Your task to perform on an android device: Open CNN.com Image 0: 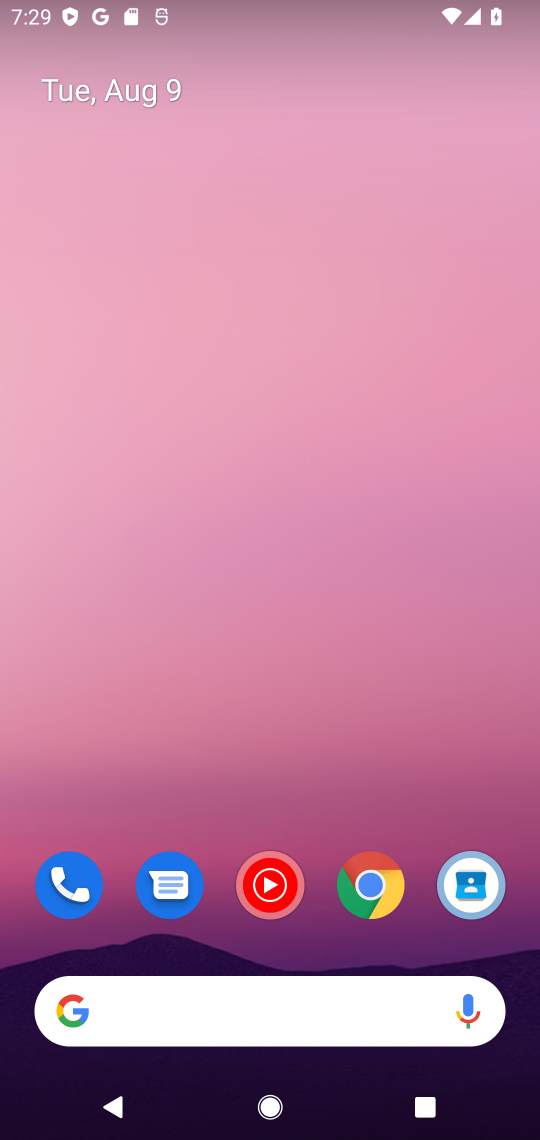
Step 0: drag from (328, 761) to (292, 222)
Your task to perform on an android device: Open CNN.com Image 1: 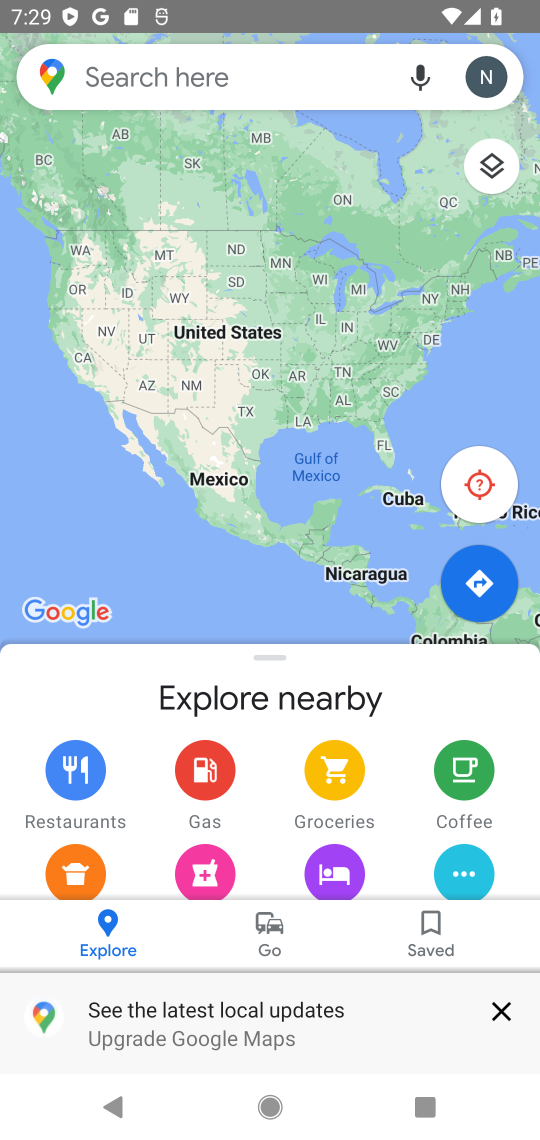
Step 1: press home button
Your task to perform on an android device: Open CNN.com Image 2: 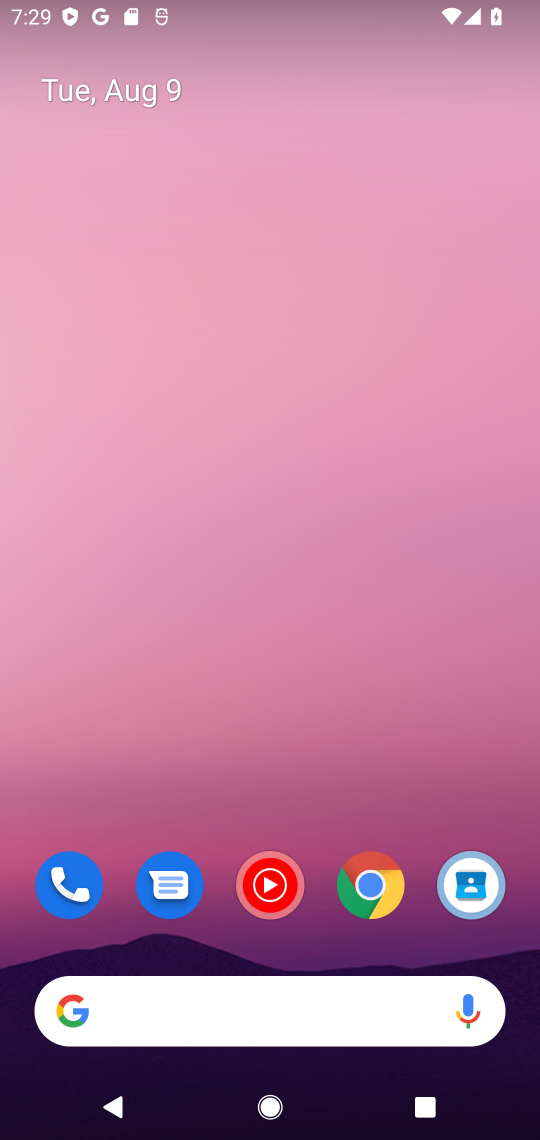
Step 2: drag from (293, 702) to (192, 166)
Your task to perform on an android device: Open CNN.com Image 3: 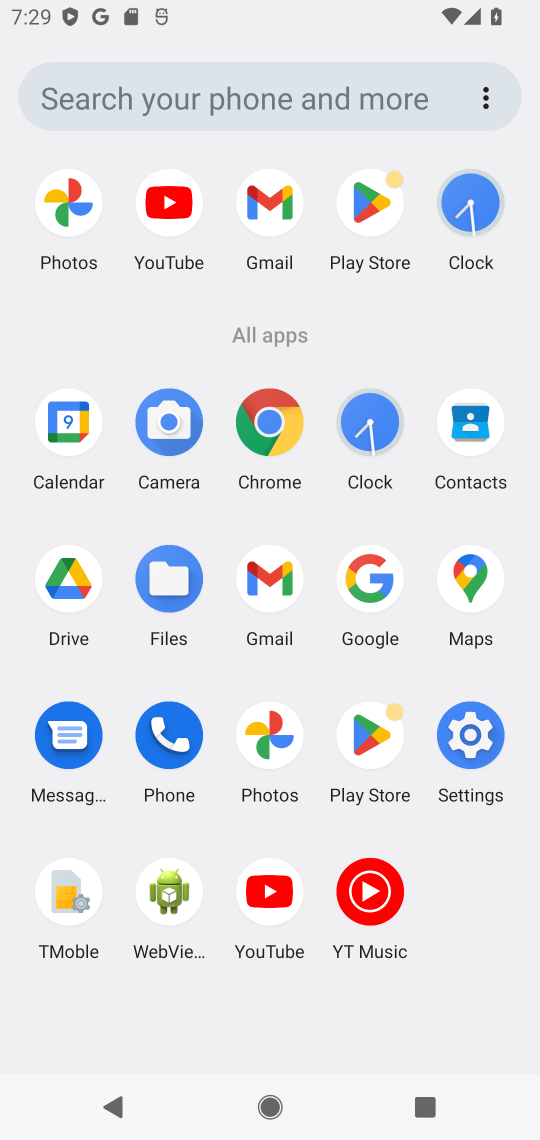
Step 3: click (272, 422)
Your task to perform on an android device: Open CNN.com Image 4: 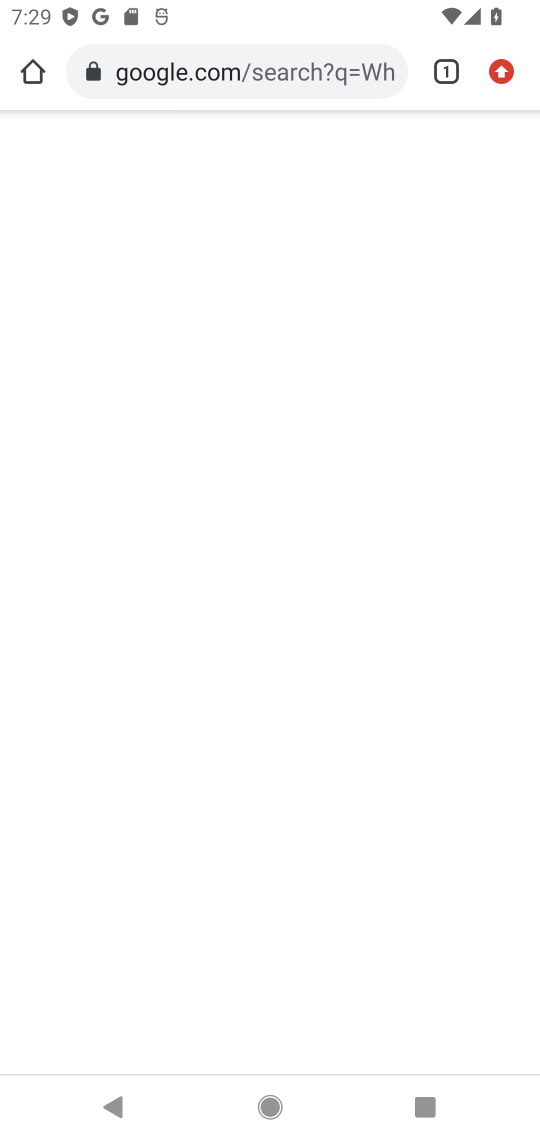
Step 4: click (263, 68)
Your task to perform on an android device: Open CNN.com Image 5: 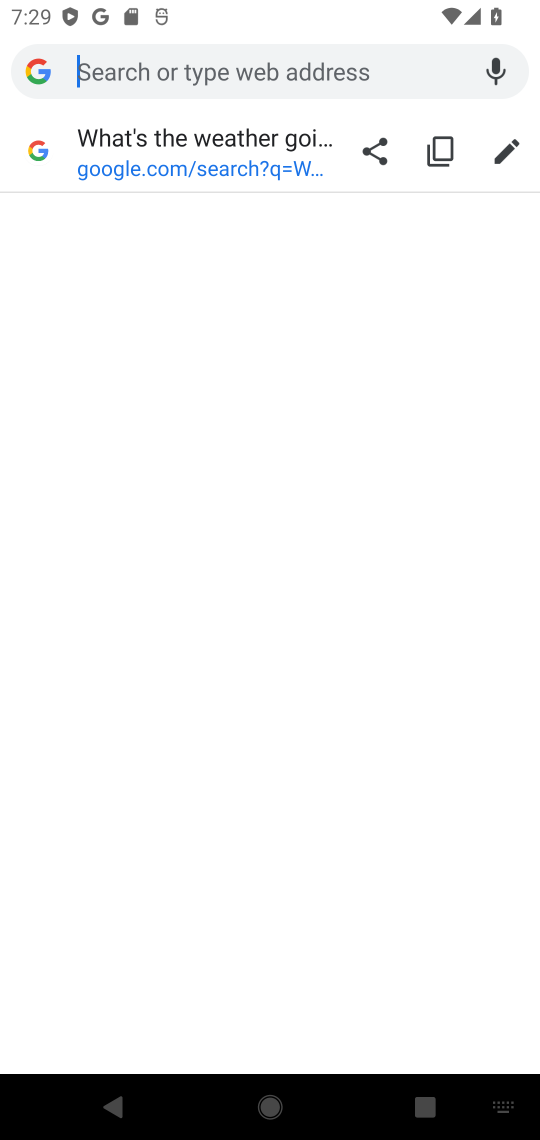
Step 5: type "CNN.com"
Your task to perform on an android device: Open CNN.com Image 6: 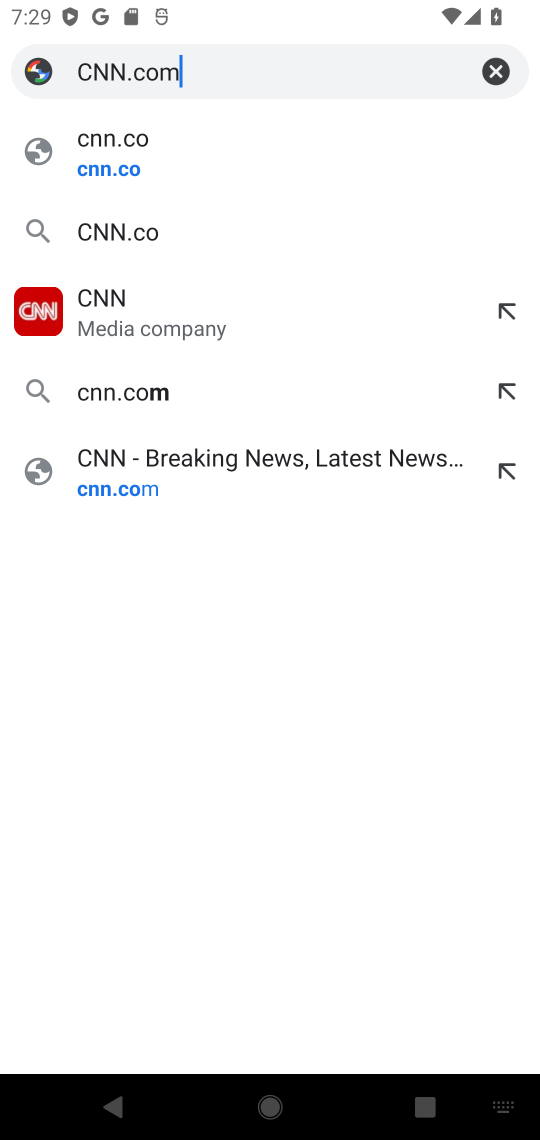
Step 6: type ""
Your task to perform on an android device: Open CNN.com Image 7: 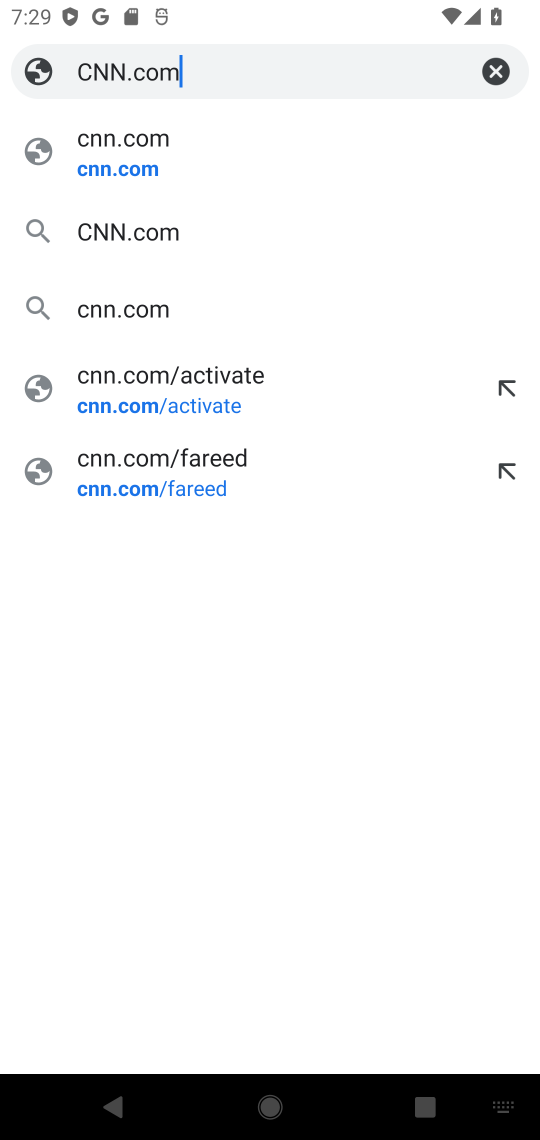
Step 7: press enter
Your task to perform on an android device: Open CNN.com Image 8: 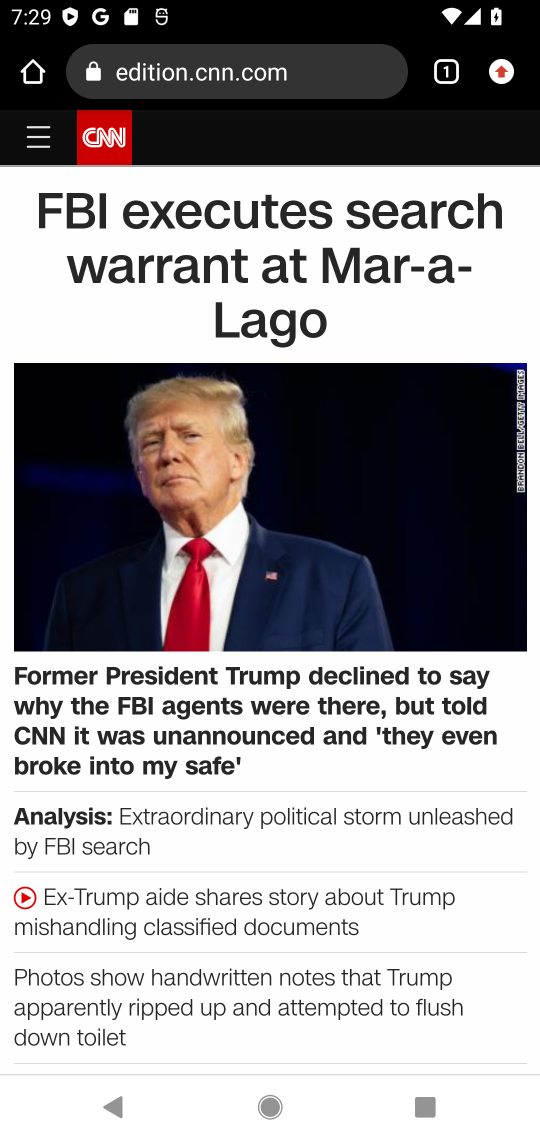
Step 8: task complete